Your task to perform on an android device: Go to ESPN.com Image 0: 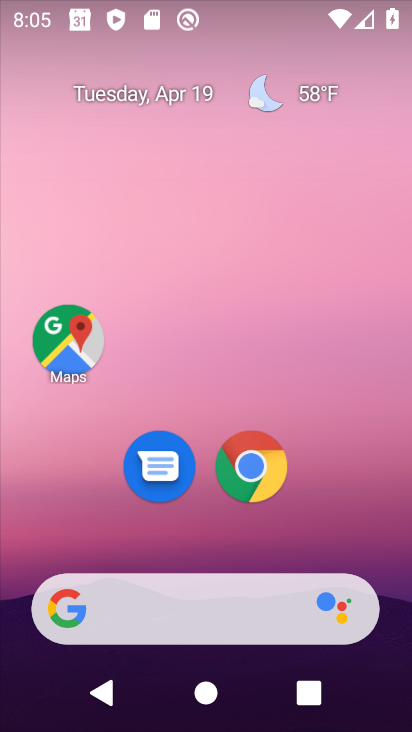
Step 0: drag from (350, 441) to (395, 140)
Your task to perform on an android device: Go to ESPN.com Image 1: 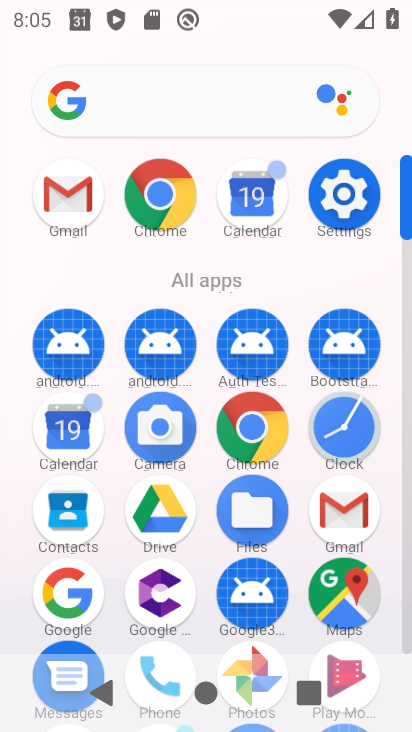
Step 1: click (250, 423)
Your task to perform on an android device: Go to ESPN.com Image 2: 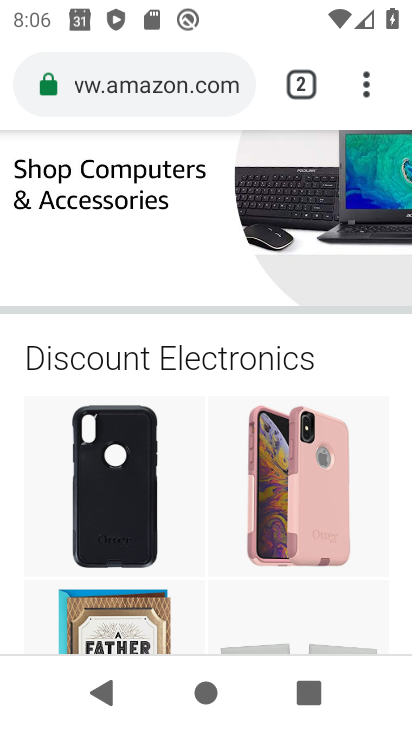
Step 2: click (368, 79)
Your task to perform on an android device: Go to ESPN.com Image 3: 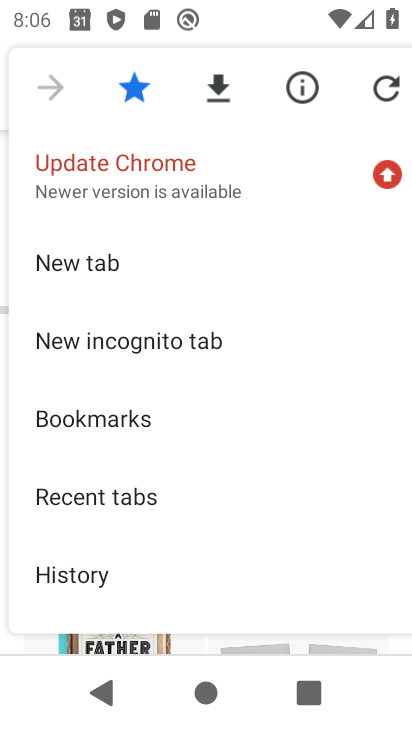
Step 3: click (133, 270)
Your task to perform on an android device: Go to ESPN.com Image 4: 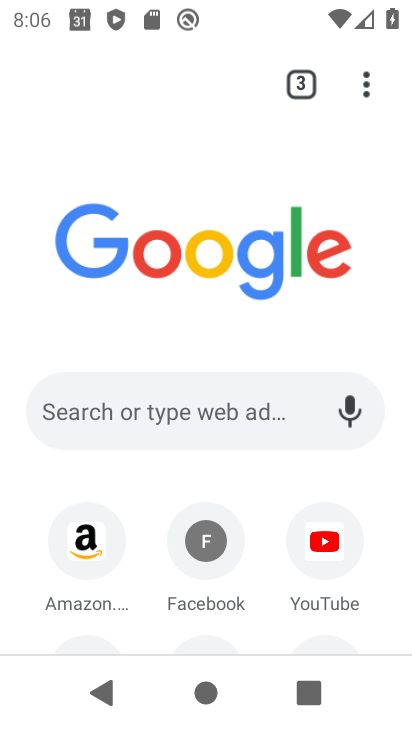
Step 4: drag from (378, 503) to (366, 176)
Your task to perform on an android device: Go to ESPN.com Image 5: 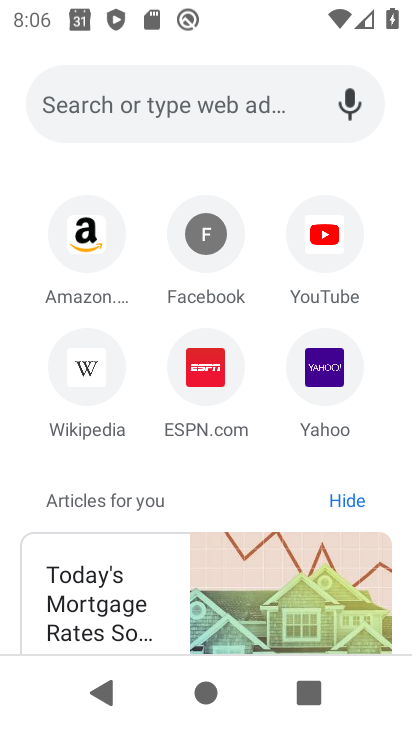
Step 5: click (205, 358)
Your task to perform on an android device: Go to ESPN.com Image 6: 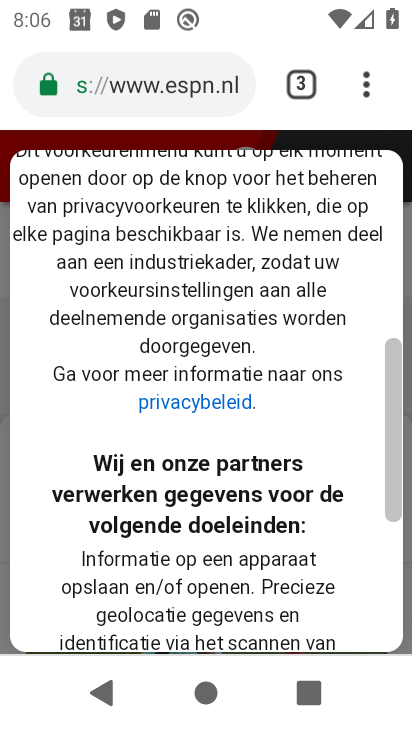
Step 6: task complete